Your task to perform on an android device: Go to Yahoo.com Image 0: 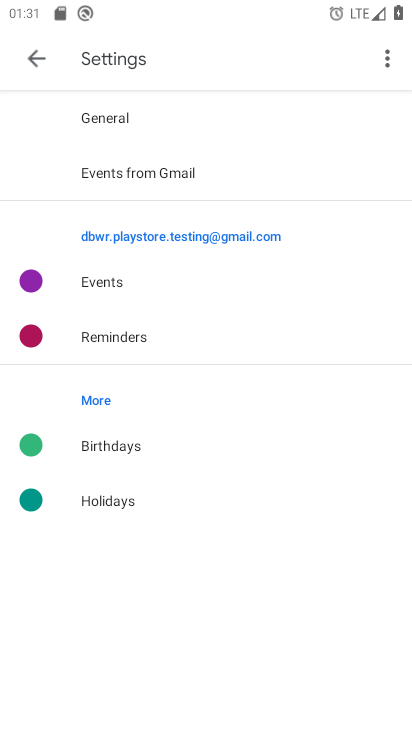
Step 0: press home button
Your task to perform on an android device: Go to Yahoo.com Image 1: 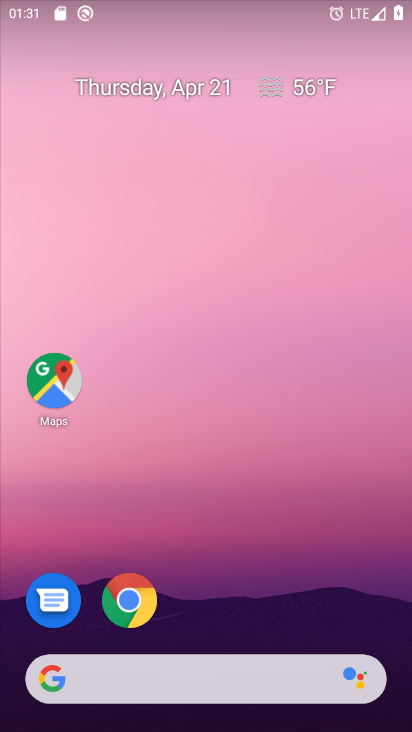
Step 1: click (231, 674)
Your task to perform on an android device: Go to Yahoo.com Image 2: 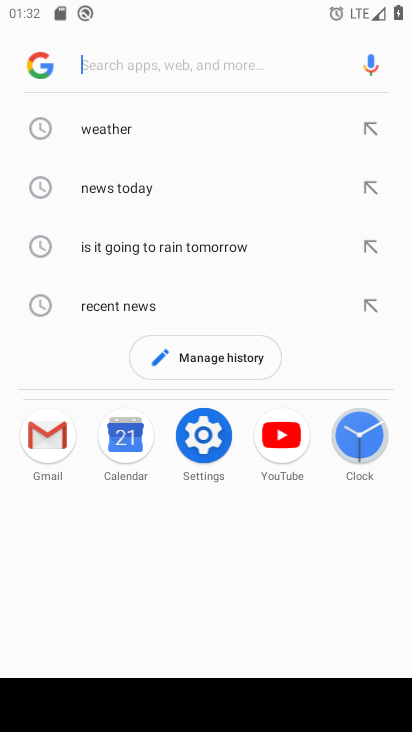
Step 2: type "yahoo.com"
Your task to perform on an android device: Go to Yahoo.com Image 3: 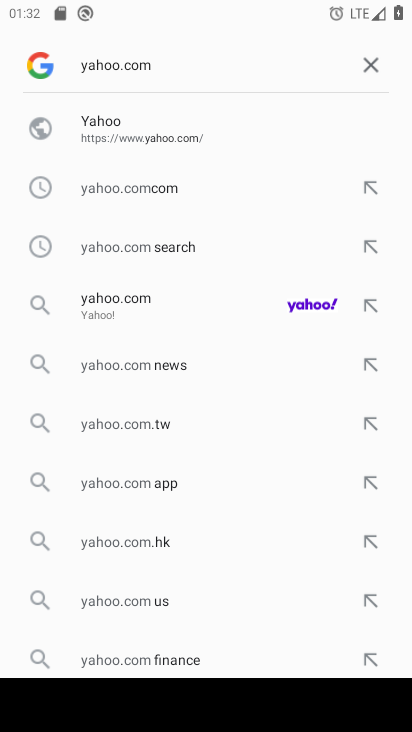
Step 3: click (312, 304)
Your task to perform on an android device: Go to Yahoo.com Image 4: 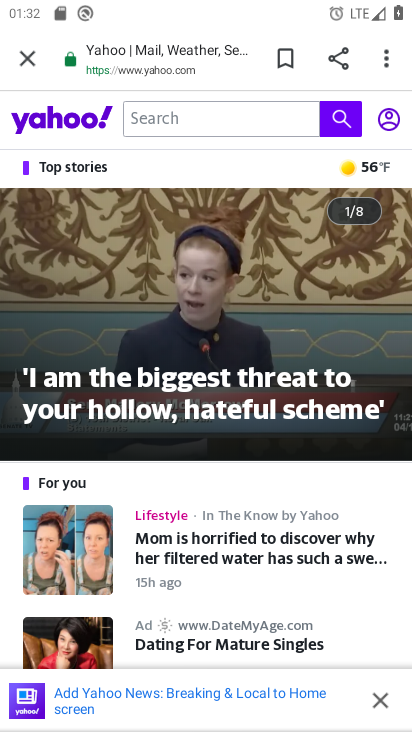
Step 4: task complete